Your task to perform on an android device: When is my next meeting? Image 0: 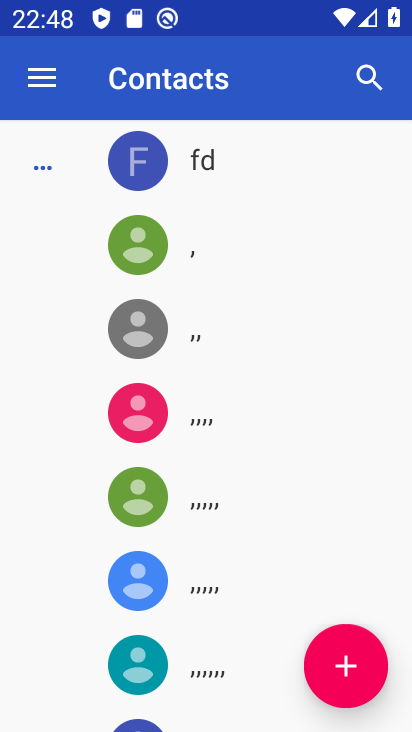
Step 0: press home button
Your task to perform on an android device: When is my next meeting? Image 1: 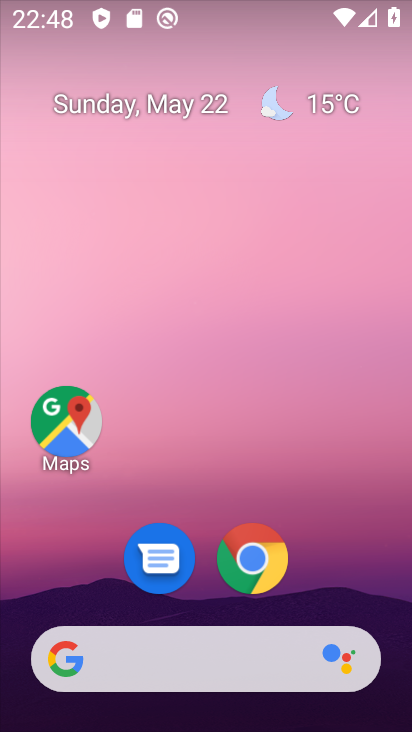
Step 1: drag from (341, 603) to (352, 20)
Your task to perform on an android device: When is my next meeting? Image 2: 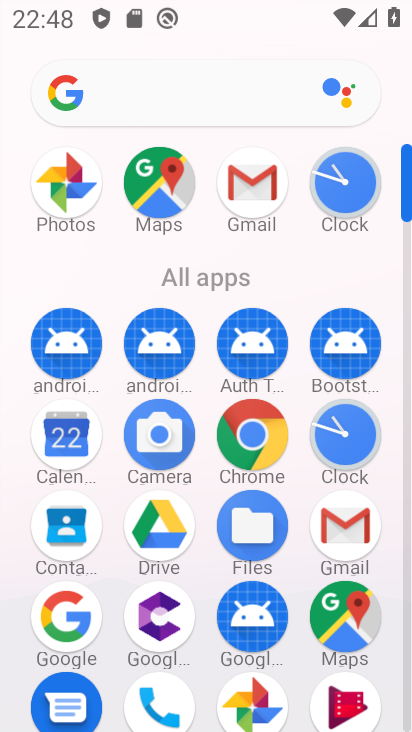
Step 2: click (62, 448)
Your task to perform on an android device: When is my next meeting? Image 3: 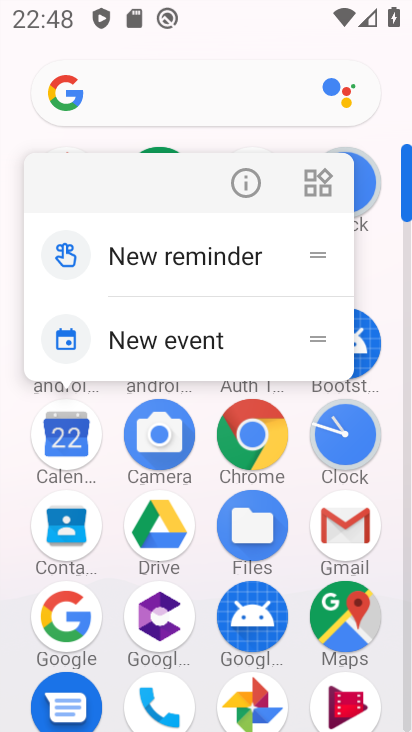
Step 3: click (60, 441)
Your task to perform on an android device: When is my next meeting? Image 4: 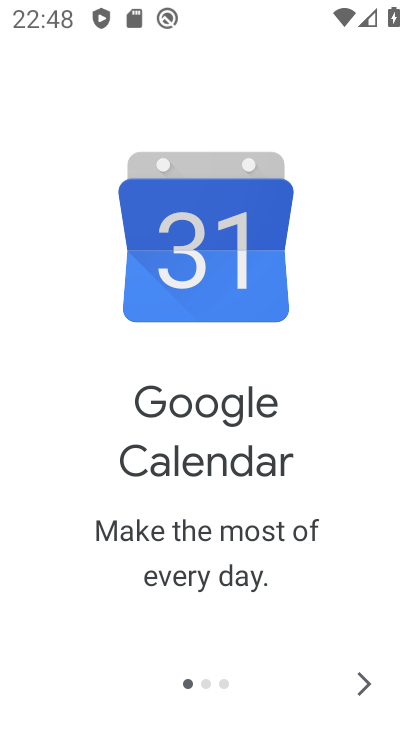
Step 4: click (351, 687)
Your task to perform on an android device: When is my next meeting? Image 5: 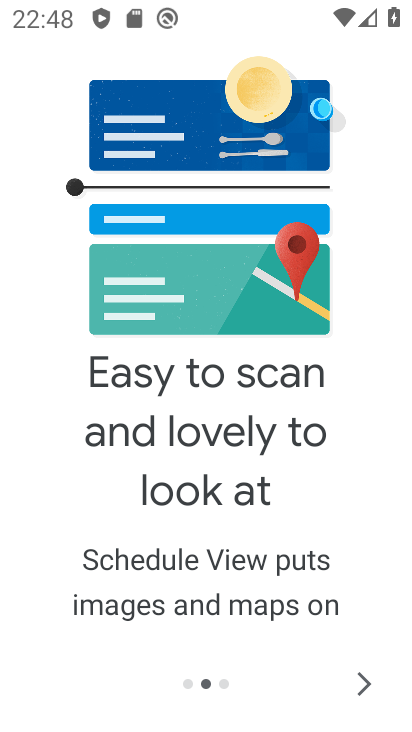
Step 5: click (354, 688)
Your task to perform on an android device: When is my next meeting? Image 6: 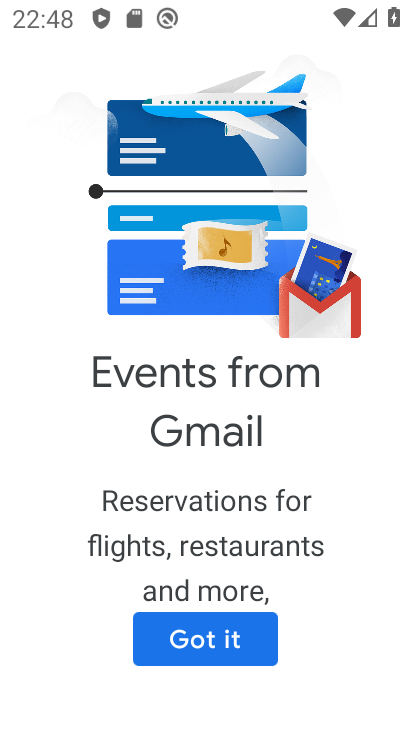
Step 6: click (211, 649)
Your task to perform on an android device: When is my next meeting? Image 7: 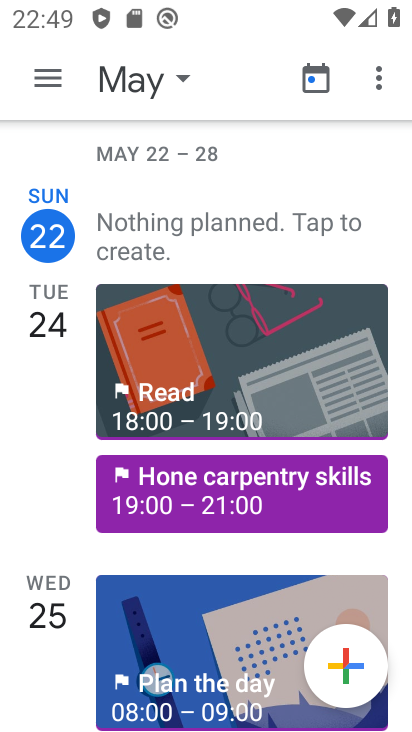
Step 7: click (178, 81)
Your task to perform on an android device: When is my next meeting? Image 8: 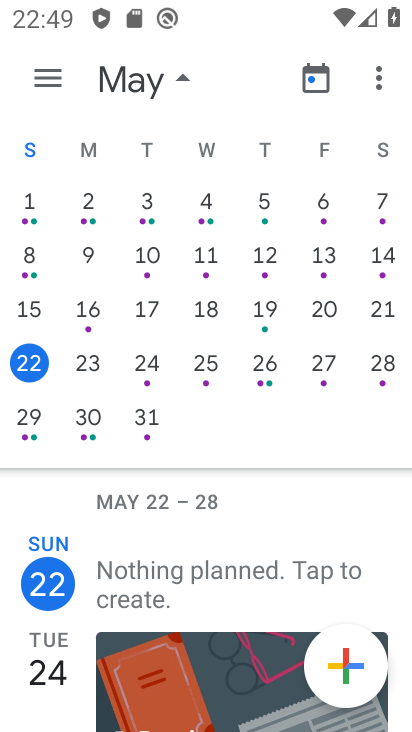
Step 8: drag from (161, 557) to (165, 92)
Your task to perform on an android device: When is my next meeting? Image 9: 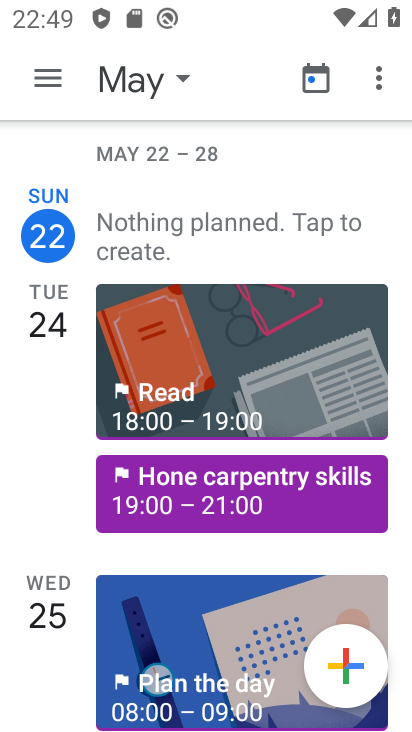
Step 9: click (218, 498)
Your task to perform on an android device: When is my next meeting? Image 10: 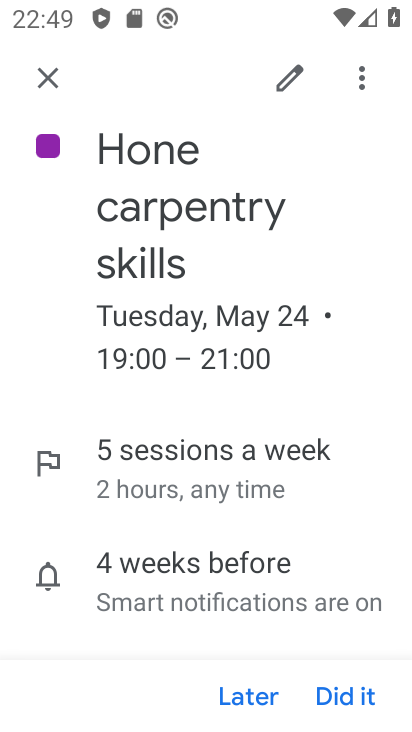
Step 10: task complete